Your task to perform on an android device: turn pop-ups off in chrome Image 0: 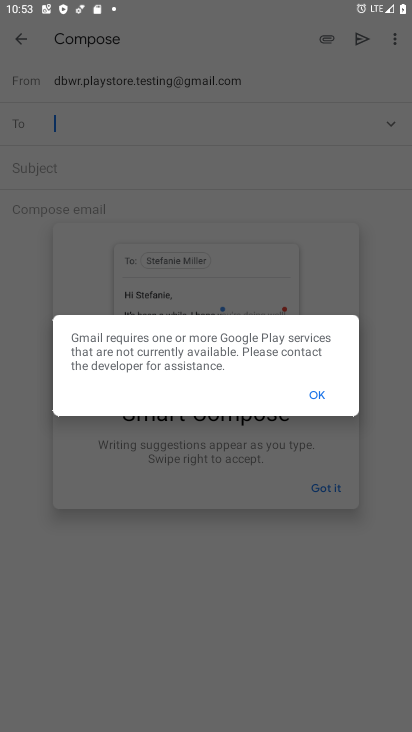
Step 0: press home button
Your task to perform on an android device: turn pop-ups off in chrome Image 1: 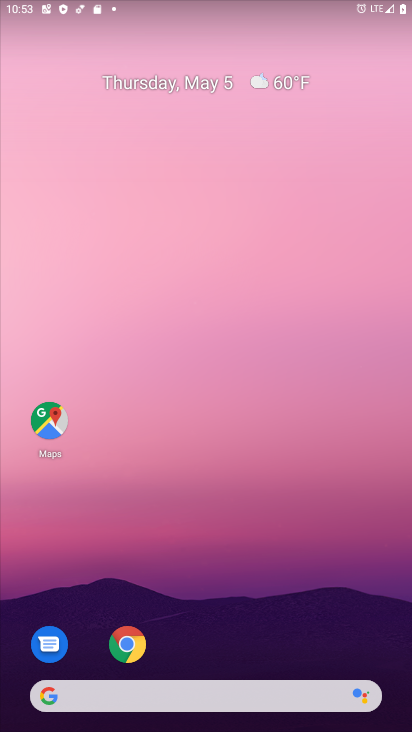
Step 1: click (133, 639)
Your task to perform on an android device: turn pop-ups off in chrome Image 2: 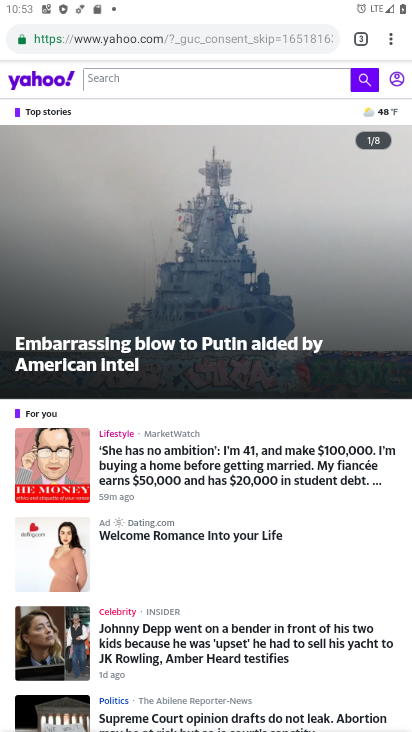
Step 2: drag from (388, 44) to (280, 475)
Your task to perform on an android device: turn pop-ups off in chrome Image 3: 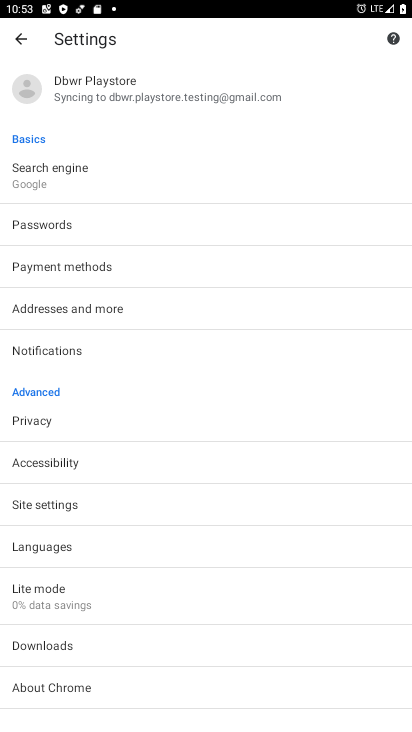
Step 3: click (66, 508)
Your task to perform on an android device: turn pop-ups off in chrome Image 4: 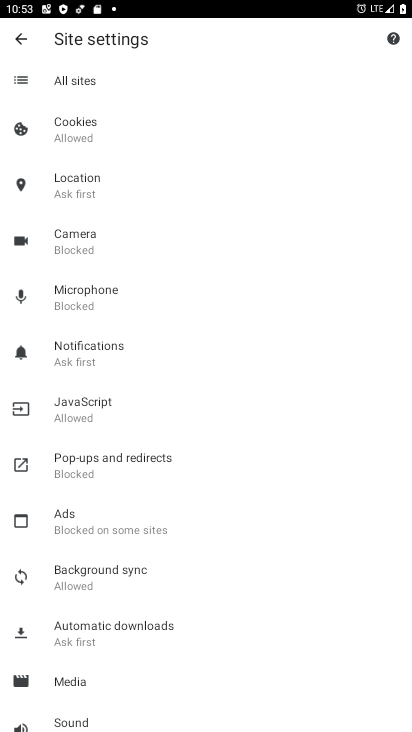
Step 4: click (152, 465)
Your task to perform on an android device: turn pop-ups off in chrome Image 5: 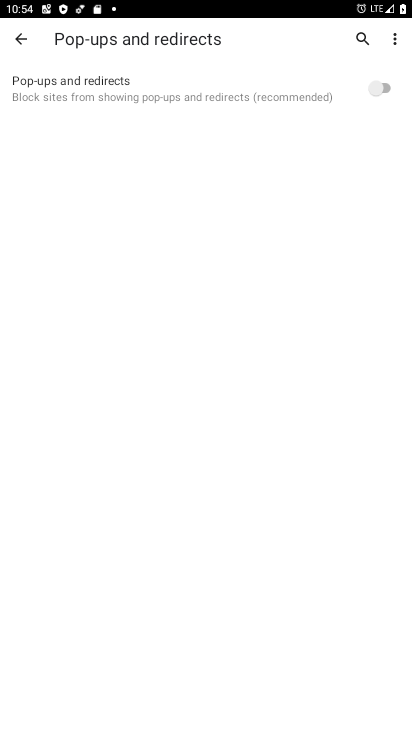
Step 5: task complete